Your task to perform on an android device: check google app version Image 0: 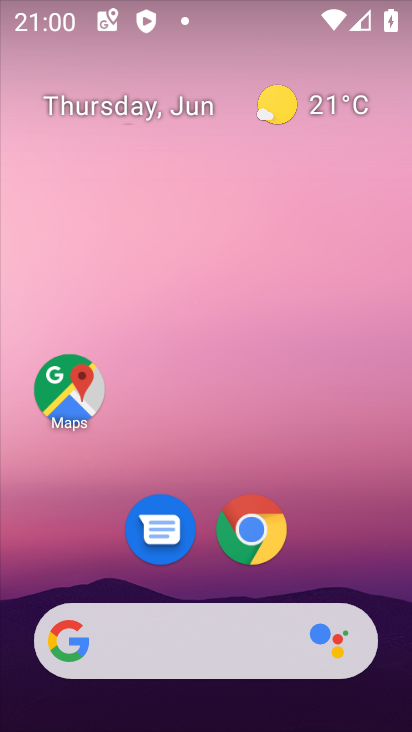
Step 0: click (164, 634)
Your task to perform on an android device: check google app version Image 1: 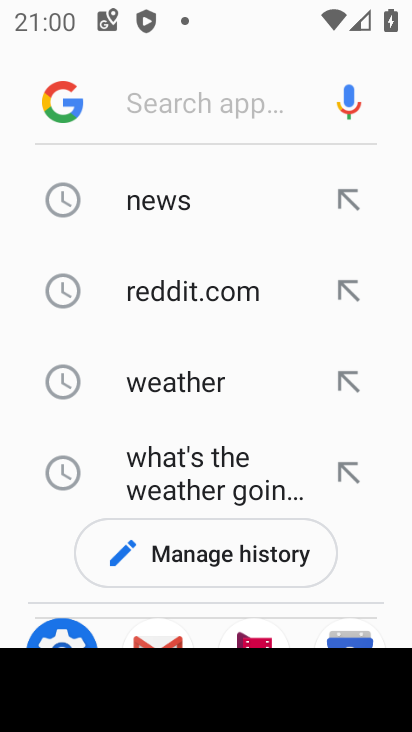
Step 1: click (52, 103)
Your task to perform on an android device: check google app version Image 2: 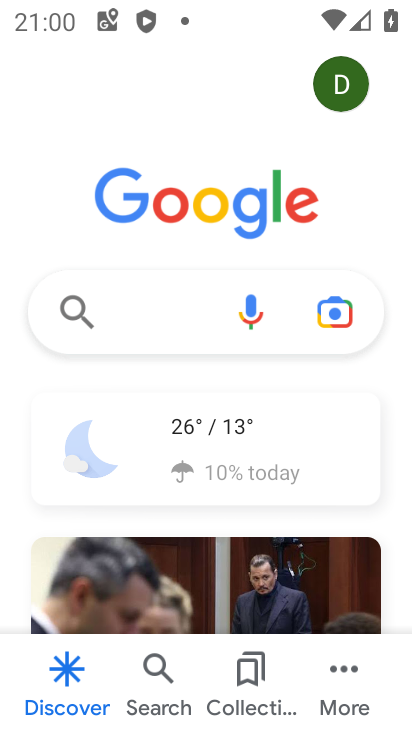
Step 2: click (340, 672)
Your task to perform on an android device: check google app version Image 3: 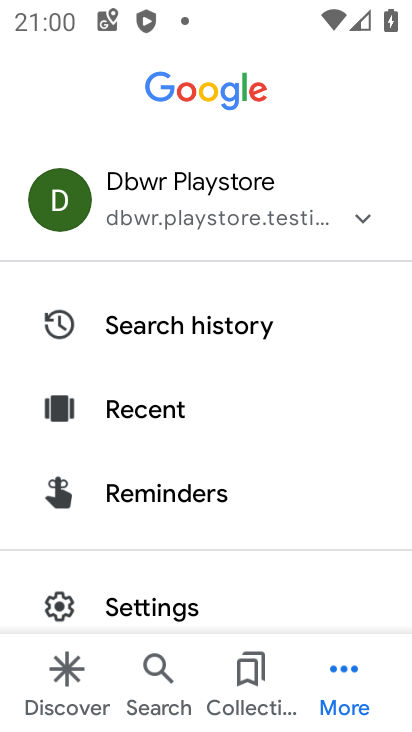
Step 3: click (152, 603)
Your task to perform on an android device: check google app version Image 4: 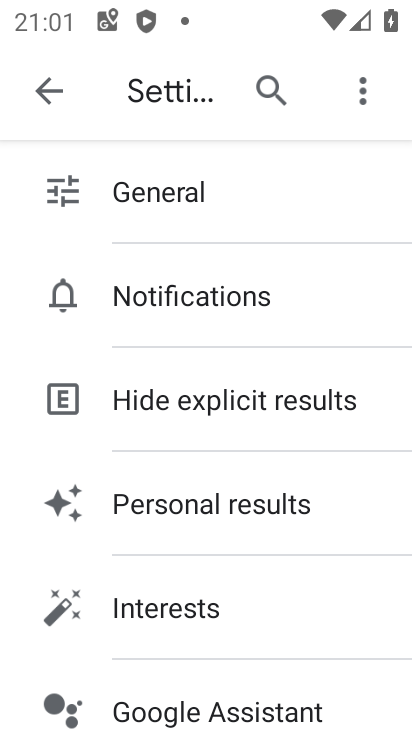
Step 4: drag from (232, 664) to (191, 345)
Your task to perform on an android device: check google app version Image 5: 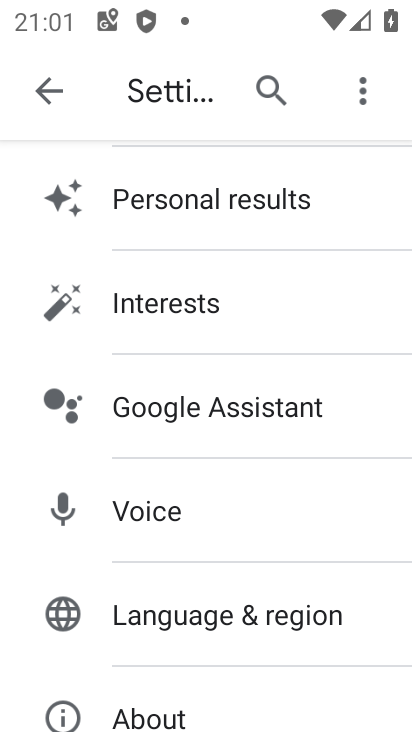
Step 5: click (128, 715)
Your task to perform on an android device: check google app version Image 6: 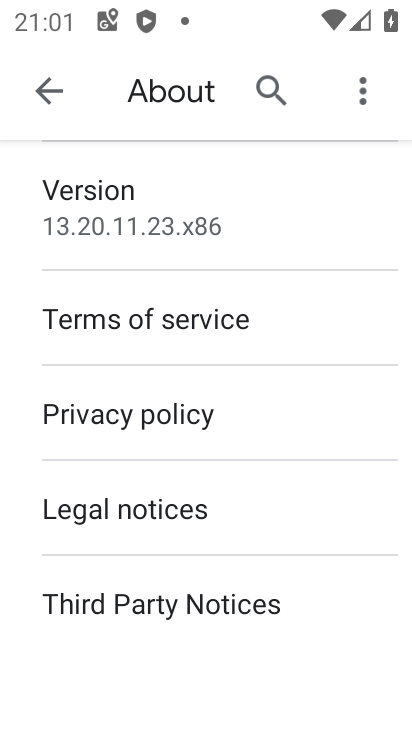
Step 6: task complete